Your task to perform on an android device: turn on javascript in the chrome app Image 0: 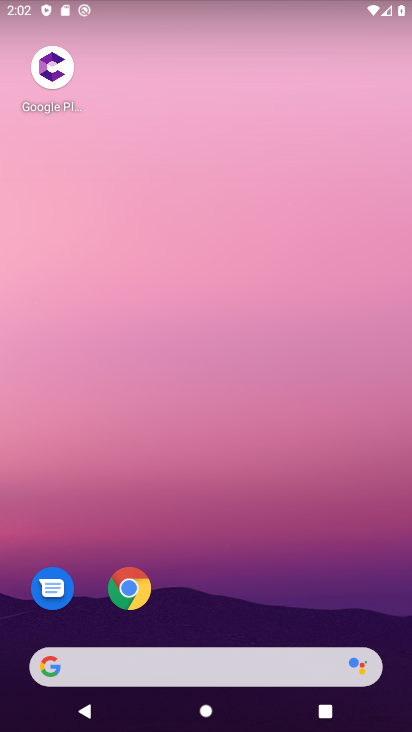
Step 0: drag from (309, 598) to (235, 16)
Your task to perform on an android device: turn on javascript in the chrome app Image 1: 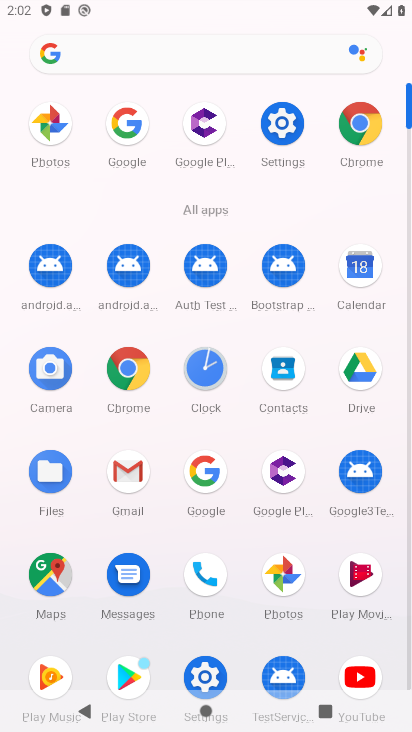
Step 1: click (361, 153)
Your task to perform on an android device: turn on javascript in the chrome app Image 2: 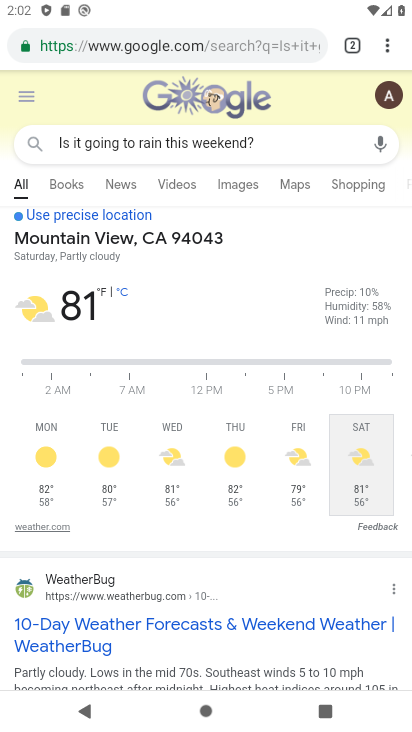
Step 2: click (393, 42)
Your task to perform on an android device: turn on javascript in the chrome app Image 3: 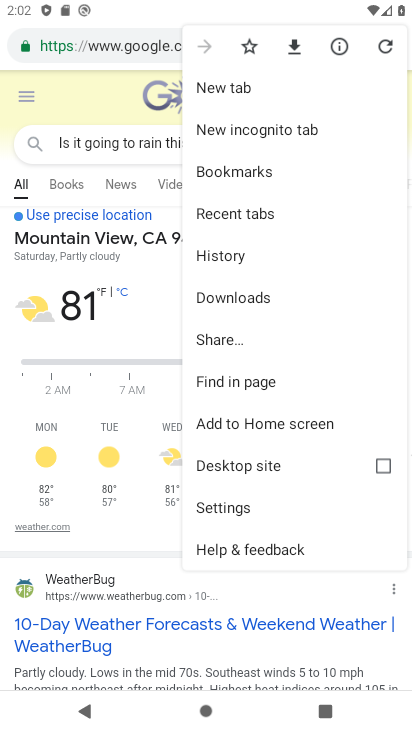
Step 3: click (257, 517)
Your task to perform on an android device: turn on javascript in the chrome app Image 4: 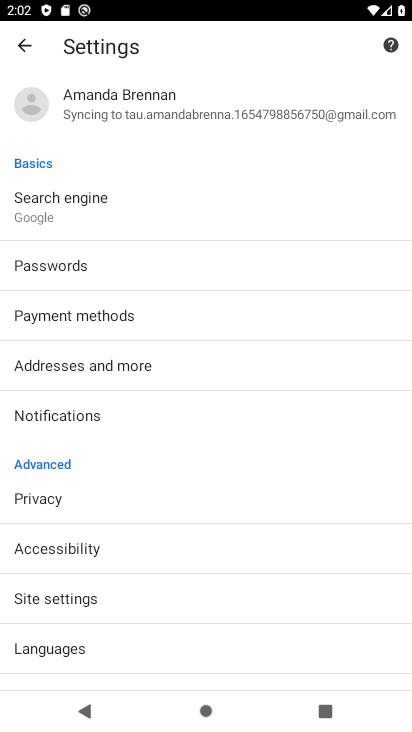
Step 4: click (155, 591)
Your task to perform on an android device: turn on javascript in the chrome app Image 5: 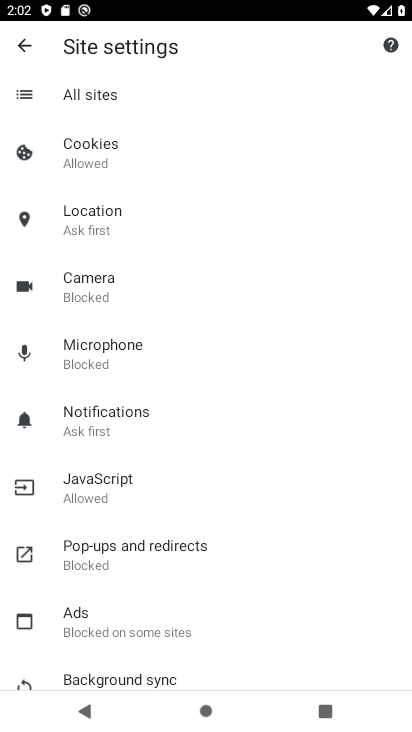
Step 5: click (149, 497)
Your task to perform on an android device: turn on javascript in the chrome app Image 6: 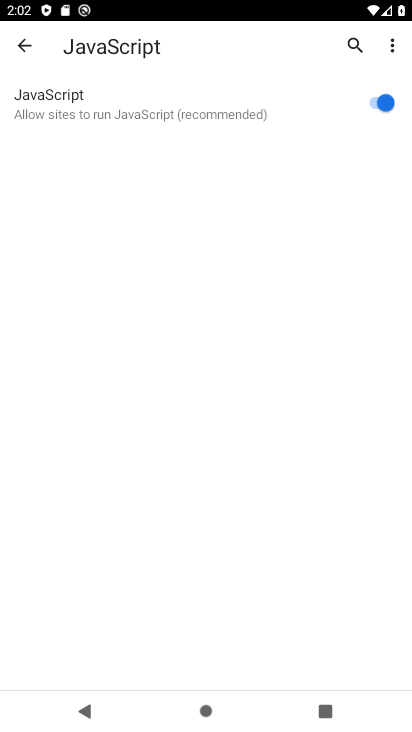
Step 6: task complete